Your task to perform on an android device: install app "Google Pay: Save, Pay, Manage" Image 0: 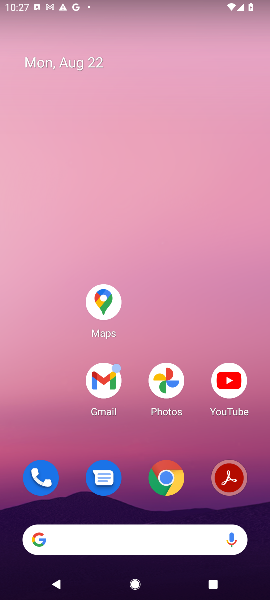
Step 0: press home button
Your task to perform on an android device: install app "Google Pay: Save, Pay, Manage" Image 1: 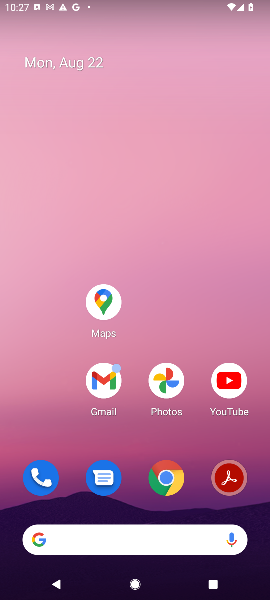
Step 1: drag from (132, 519) to (134, 268)
Your task to perform on an android device: install app "Google Pay: Save, Pay, Manage" Image 2: 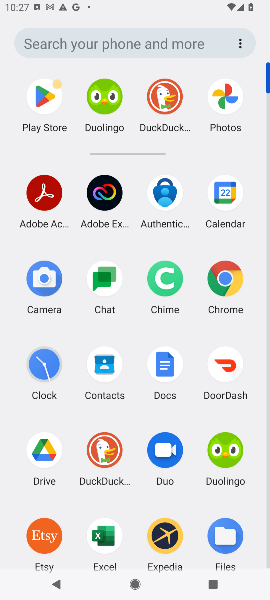
Step 2: click (134, 268)
Your task to perform on an android device: install app "Google Pay: Save, Pay, Manage" Image 3: 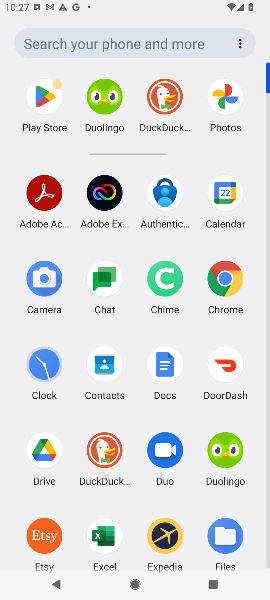
Step 3: click (26, 89)
Your task to perform on an android device: install app "Google Pay: Save, Pay, Manage" Image 4: 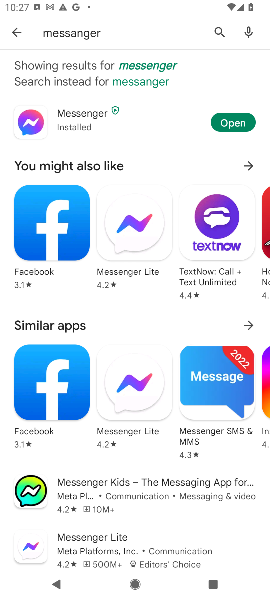
Step 4: click (205, 39)
Your task to perform on an android device: install app "Google Pay: Save, Pay, Manage" Image 5: 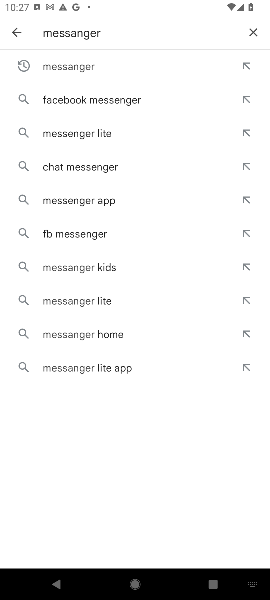
Step 5: click (259, 39)
Your task to perform on an android device: install app "Google Pay: Save, Pay, Manage" Image 6: 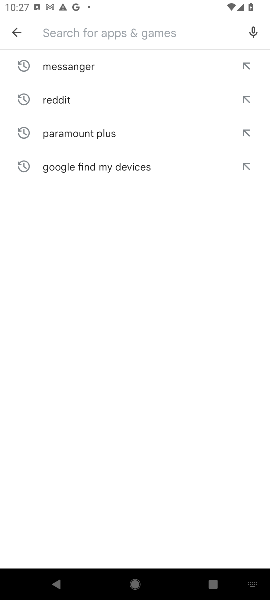
Step 6: type "google pay"
Your task to perform on an android device: install app "Google Pay: Save, Pay, Manage" Image 7: 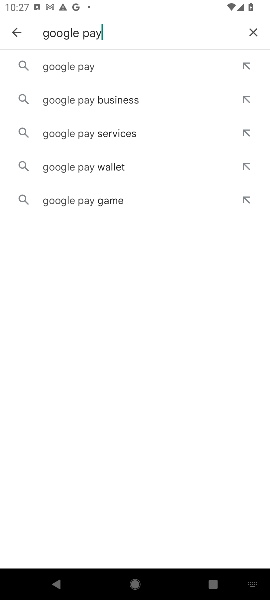
Step 7: click (127, 77)
Your task to perform on an android device: install app "Google Pay: Save, Pay, Manage" Image 8: 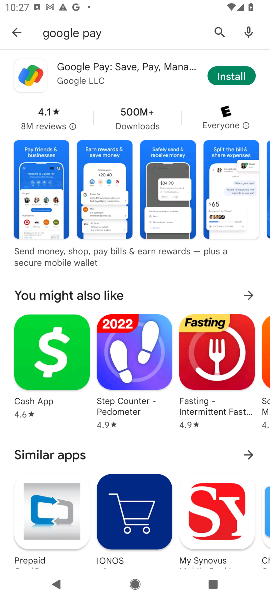
Step 8: click (229, 81)
Your task to perform on an android device: install app "Google Pay: Save, Pay, Manage" Image 9: 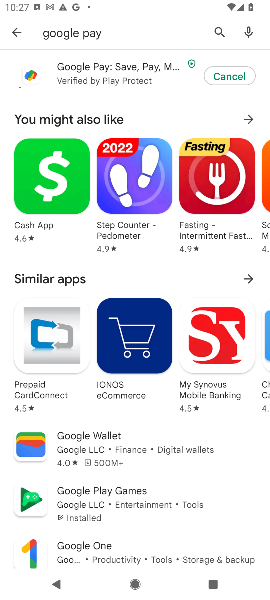
Step 9: task complete